Your task to perform on an android device: Go to sound settings Image 0: 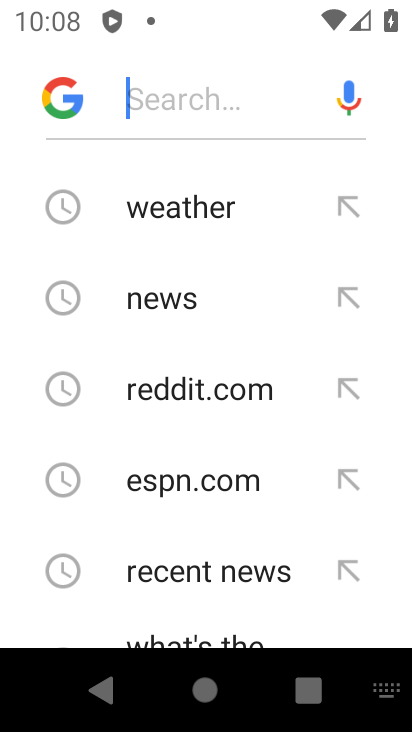
Step 0: press home button
Your task to perform on an android device: Go to sound settings Image 1: 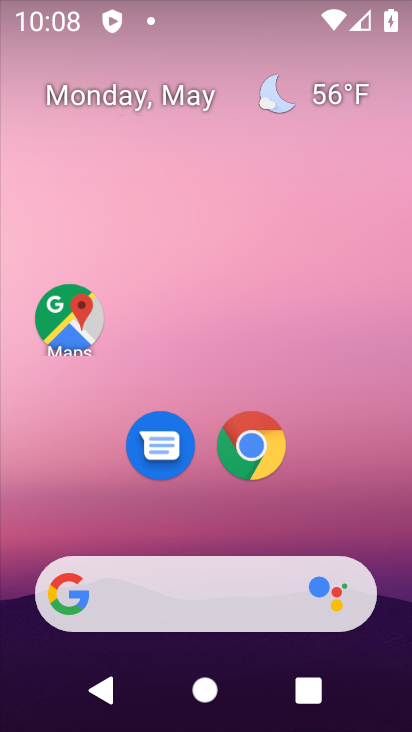
Step 1: drag from (193, 550) to (196, 220)
Your task to perform on an android device: Go to sound settings Image 2: 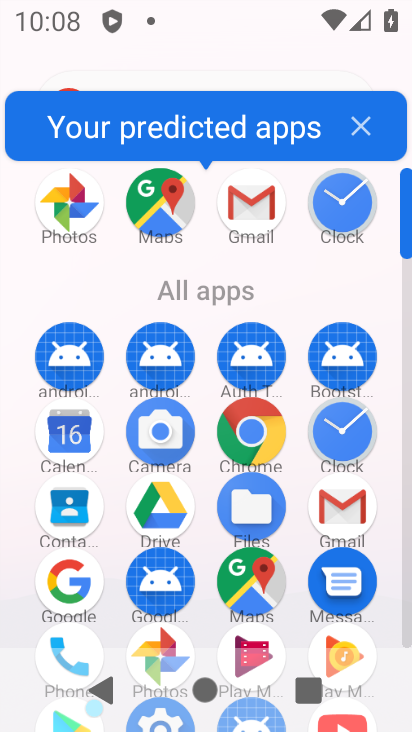
Step 2: drag from (204, 618) to (196, 279)
Your task to perform on an android device: Go to sound settings Image 3: 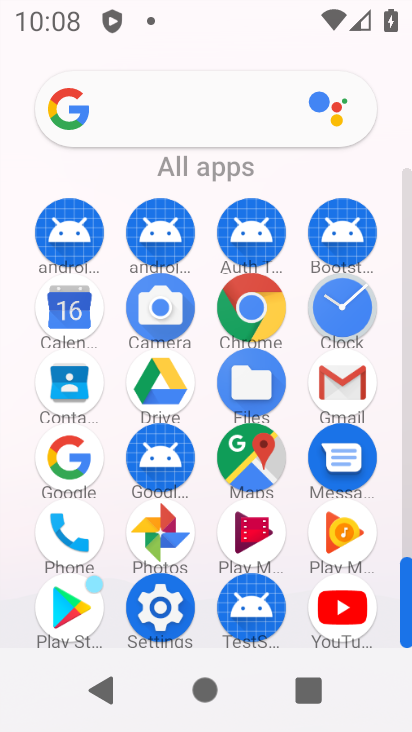
Step 3: click (160, 615)
Your task to perform on an android device: Go to sound settings Image 4: 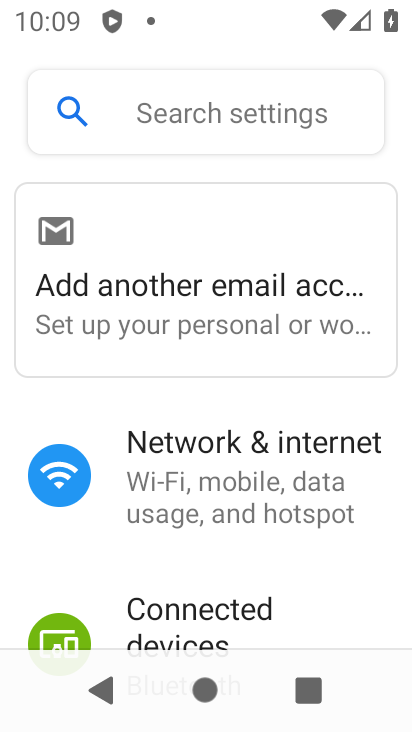
Step 4: drag from (177, 609) to (197, 244)
Your task to perform on an android device: Go to sound settings Image 5: 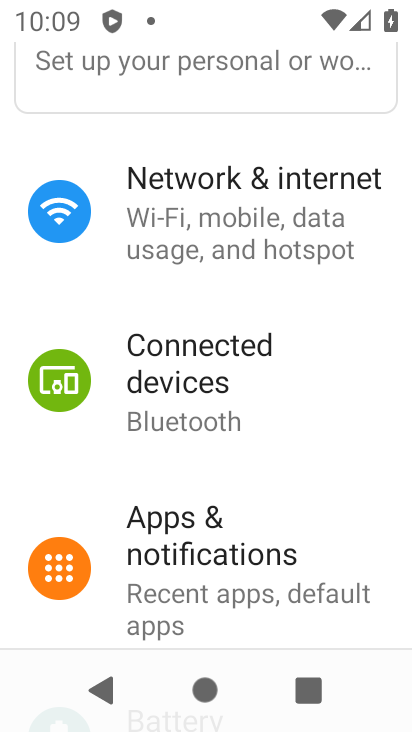
Step 5: drag from (211, 610) to (252, 247)
Your task to perform on an android device: Go to sound settings Image 6: 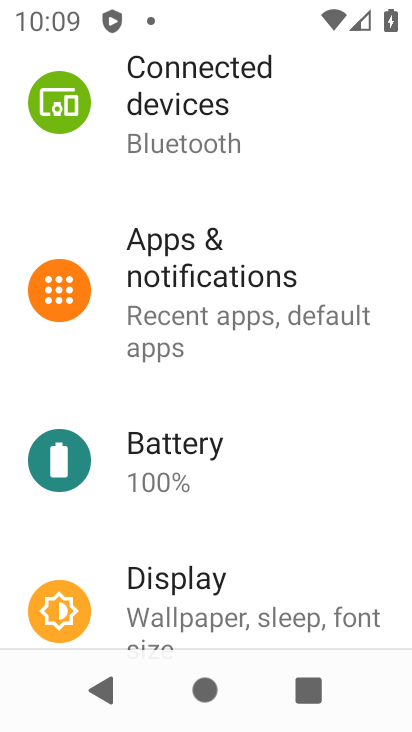
Step 6: drag from (195, 583) to (229, 253)
Your task to perform on an android device: Go to sound settings Image 7: 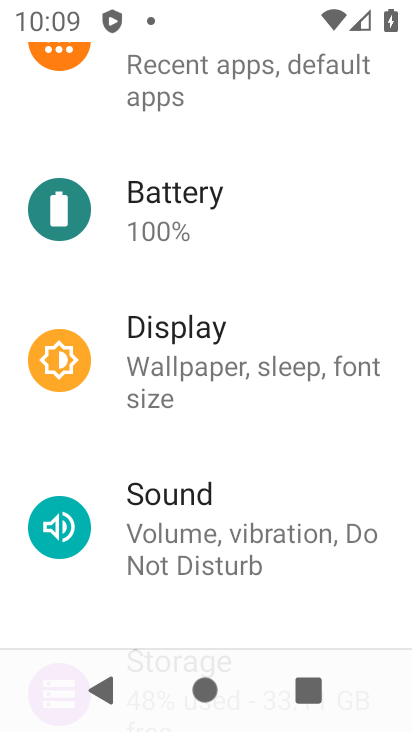
Step 7: click (212, 523)
Your task to perform on an android device: Go to sound settings Image 8: 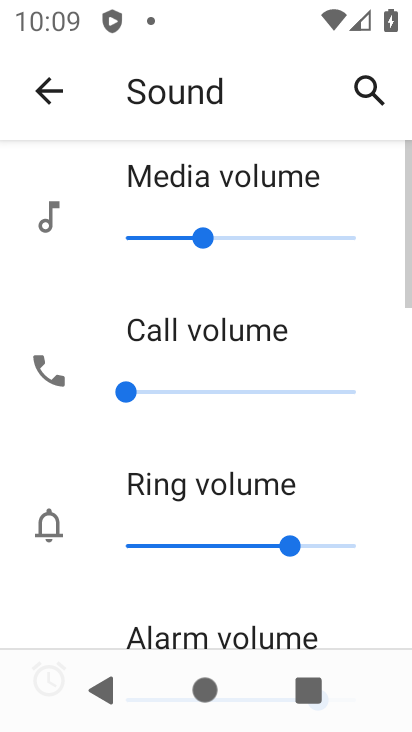
Step 8: task complete